Your task to perform on an android device: Go to CNN.com Image 0: 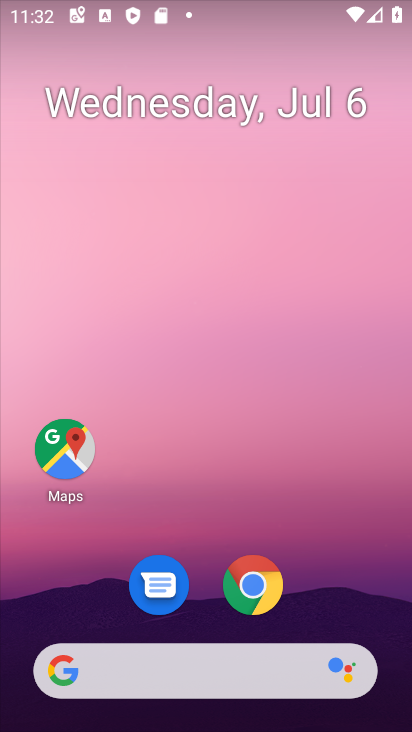
Step 0: click (183, 686)
Your task to perform on an android device: Go to CNN.com Image 1: 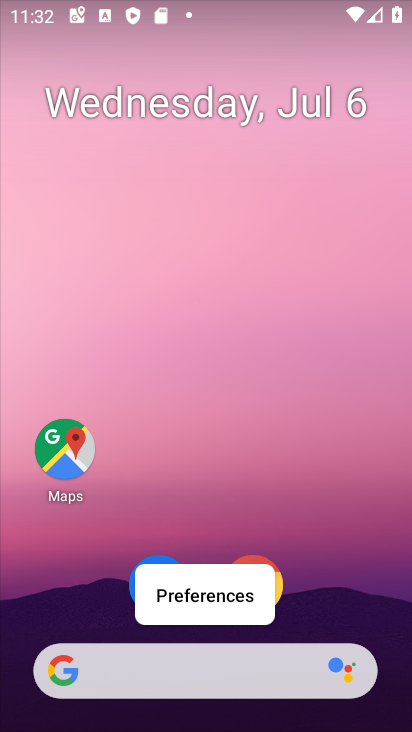
Step 1: click (183, 679)
Your task to perform on an android device: Go to CNN.com Image 2: 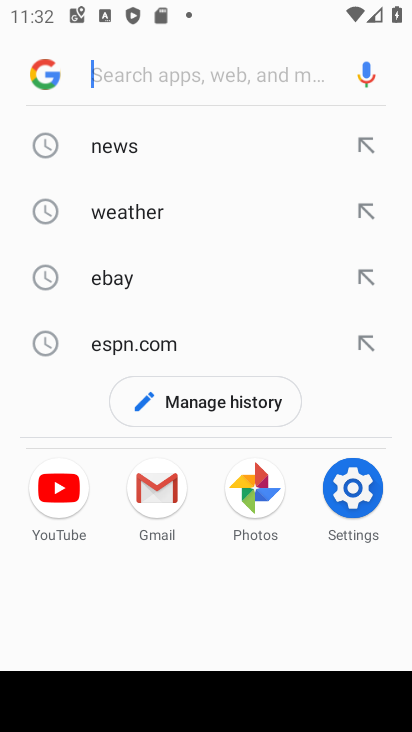
Step 2: type "cnn.com"
Your task to perform on an android device: Go to CNN.com Image 3: 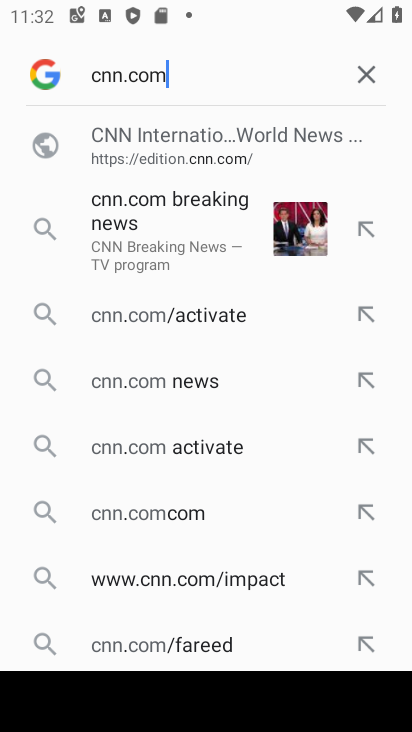
Step 3: drag from (216, 510) to (202, 201)
Your task to perform on an android device: Go to CNN.com Image 4: 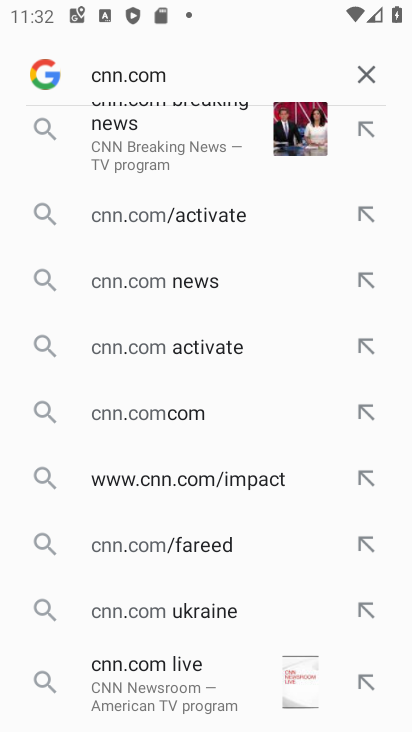
Step 4: drag from (204, 169) to (237, 545)
Your task to perform on an android device: Go to CNN.com Image 5: 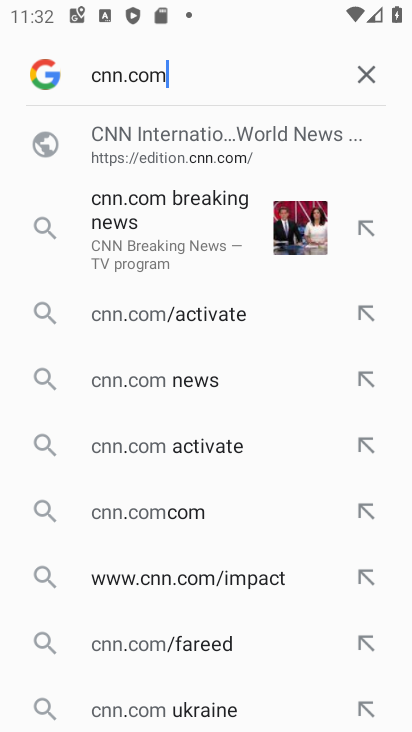
Step 5: click (141, 157)
Your task to perform on an android device: Go to CNN.com Image 6: 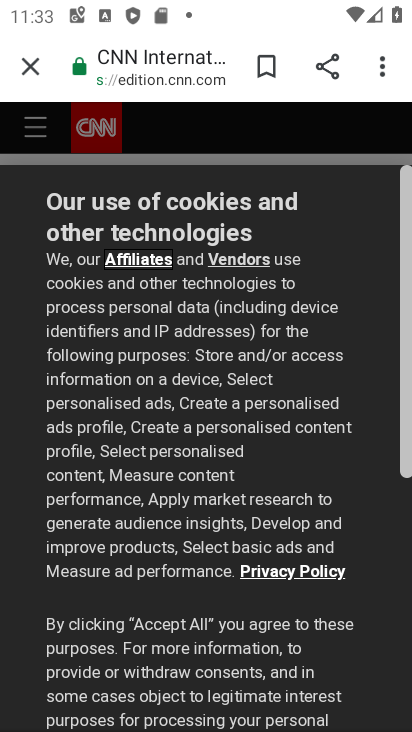
Step 6: task complete